Your task to perform on an android device: turn vacation reply on in the gmail app Image 0: 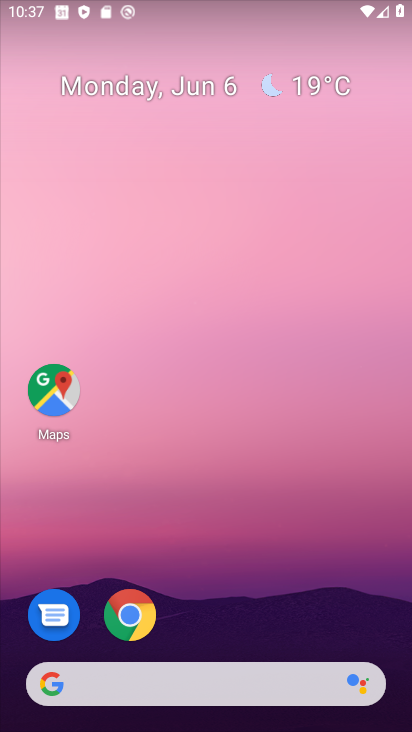
Step 0: drag from (303, 641) to (223, 123)
Your task to perform on an android device: turn vacation reply on in the gmail app Image 1: 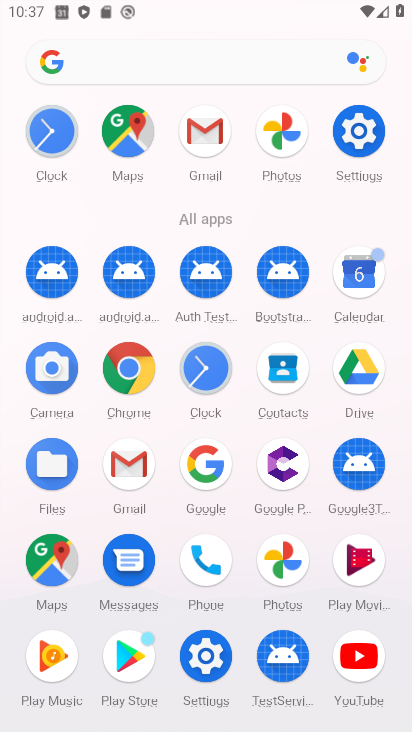
Step 1: click (196, 143)
Your task to perform on an android device: turn vacation reply on in the gmail app Image 2: 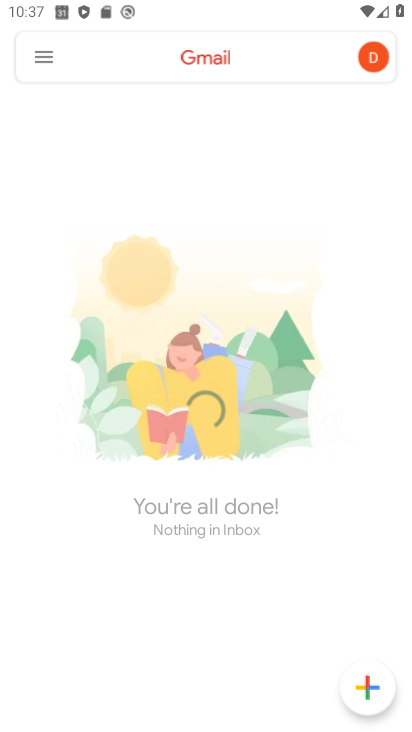
Step 2: task complete